Your task to perform on an android device: Turn off the flashlight Image 0: 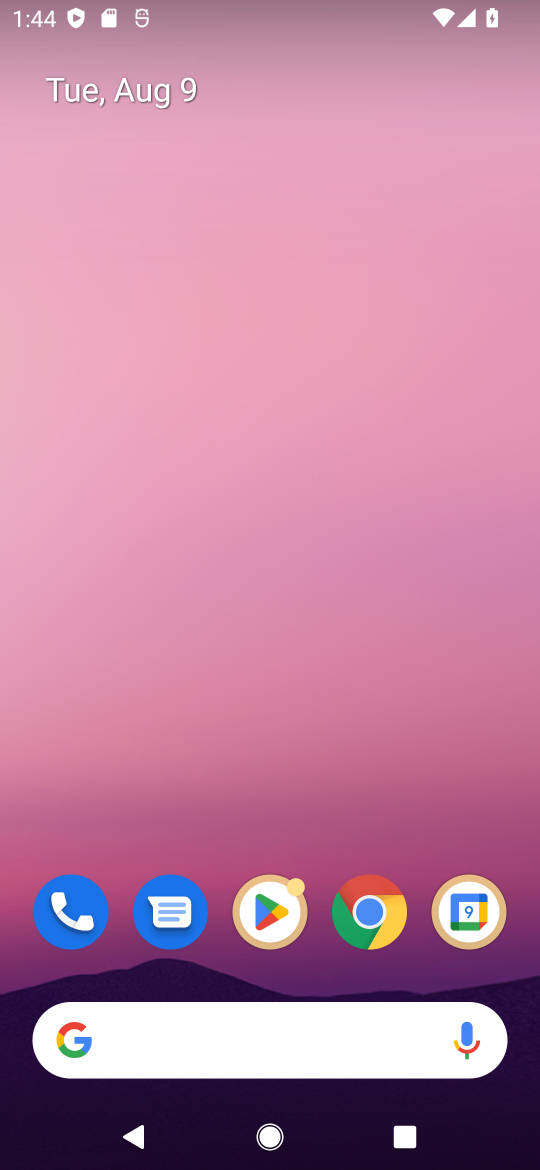
Step 0: drag from (348, 767) to (348, 67)
Your task to perform on an android device: Turn off the flashlight Image 1: 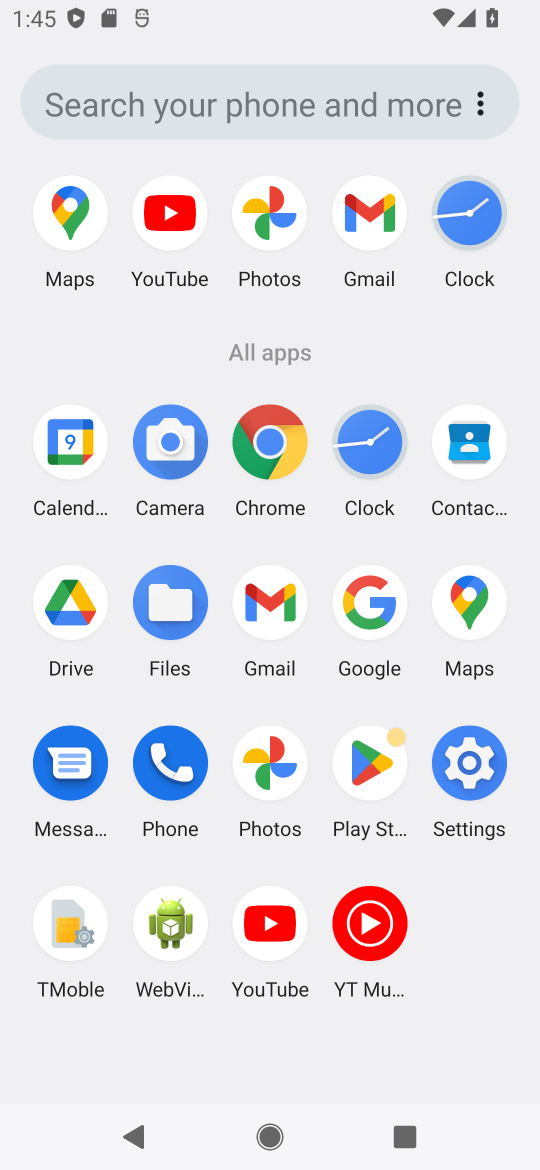
Step 1: click (471, 766)
Your task to perform on an android device: Turn off the flashlight Image 2: 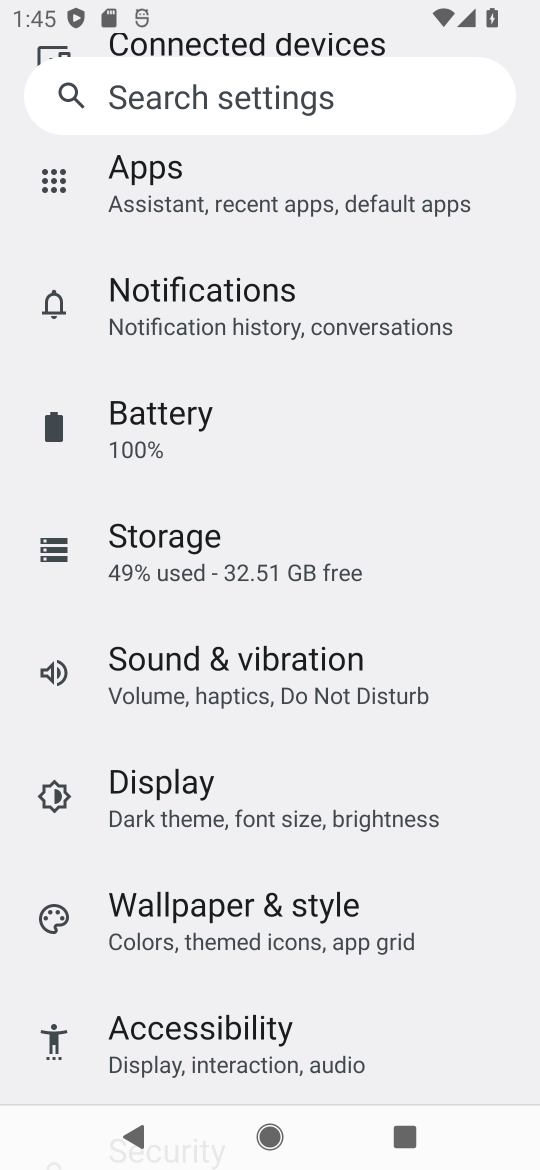
Step 2: click (177, 776)
Your task to perform on an android device: Turn off the flashlight Image 3: 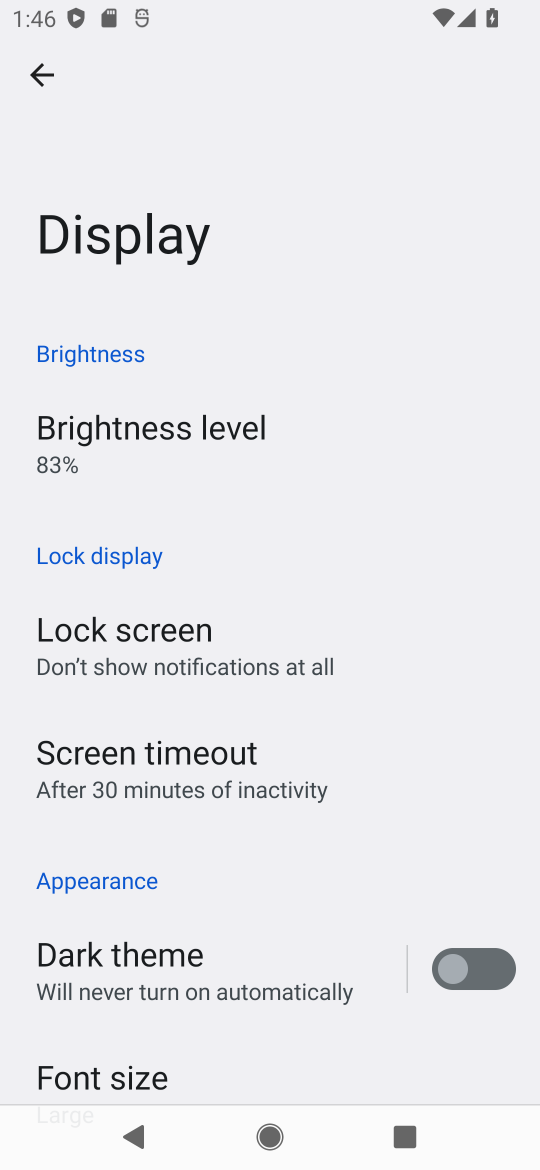
Step 3: task complete